Your task to perform on an android device: Open the stopwatch Image 0: 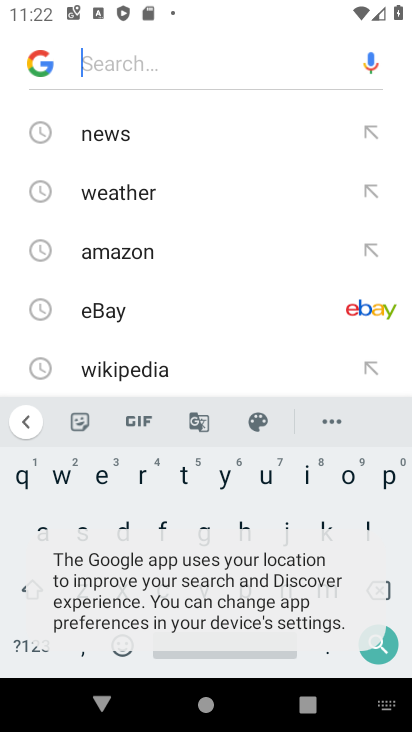
Step 0: press home button
Your task to perform on an android device: Open the stopwatch Image 1: 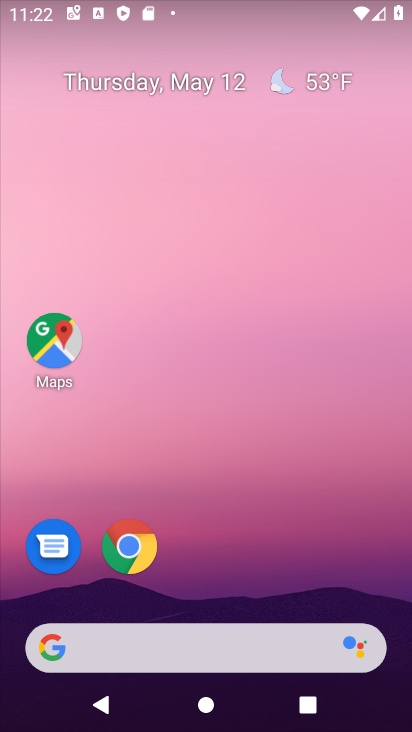
Step 1: drag from (269, 682) to (247, 306)
Your task to perform on an android device: Open the stopwatch Image 2: 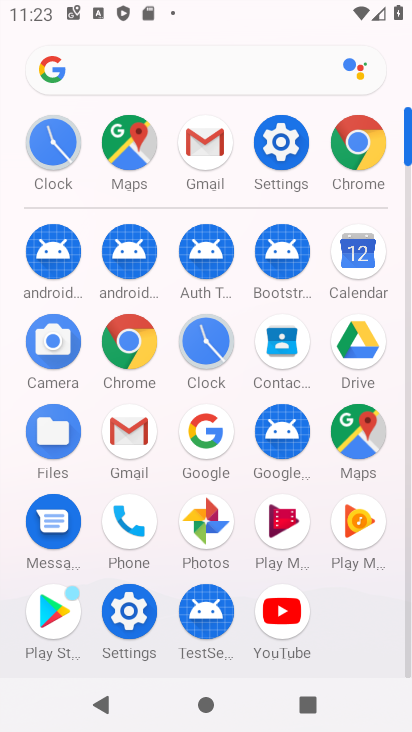
Step 2: click (201, 336)
Your task to perform on an android device: Open the stopwatch Image 3: 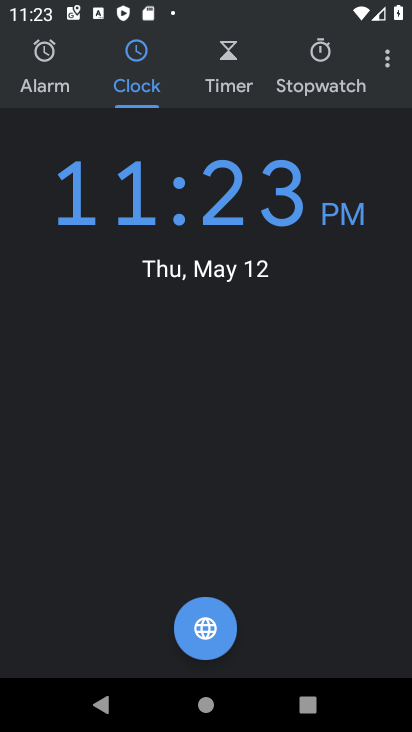
Step 3: click (298, 87)
Your task to perform on an android device: Open the stopwatch Image 4: 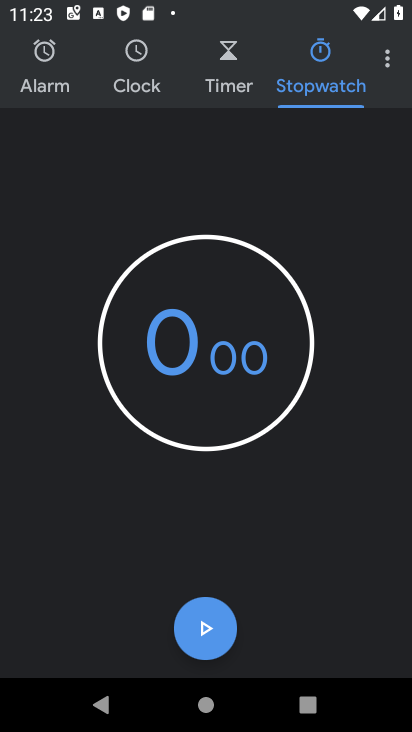
Step 4: task complete